Your task to perform on an android device: Go to location settings Image 0: 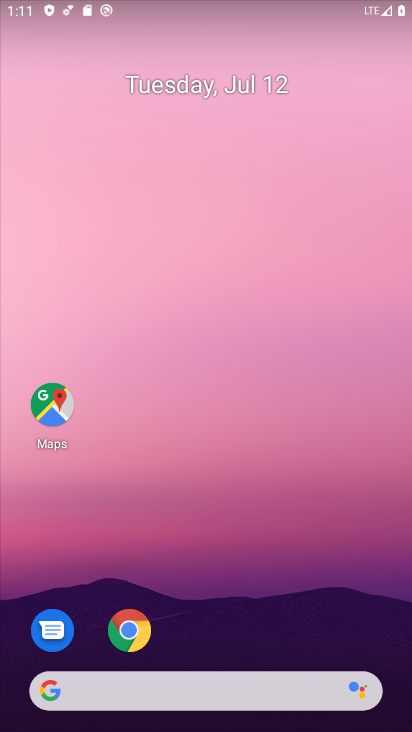
Step 0: drag from (359, 612) to (339, 111)
Your task to perform on an android device: Go to location settings Image 1: 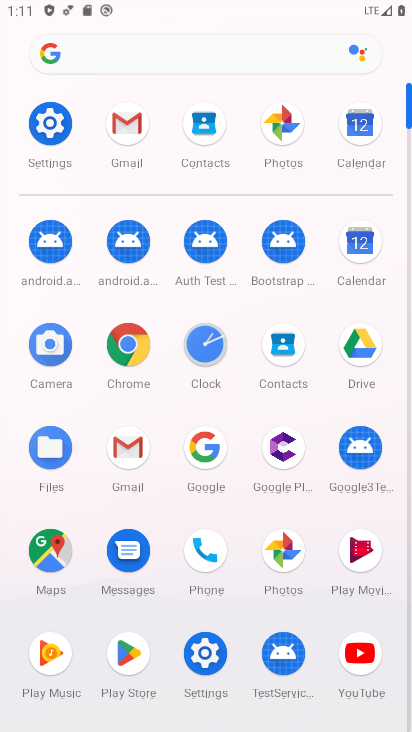
Step 1: click (203, 657)
Your task to perform on an android device: Go to location settings Image 2: 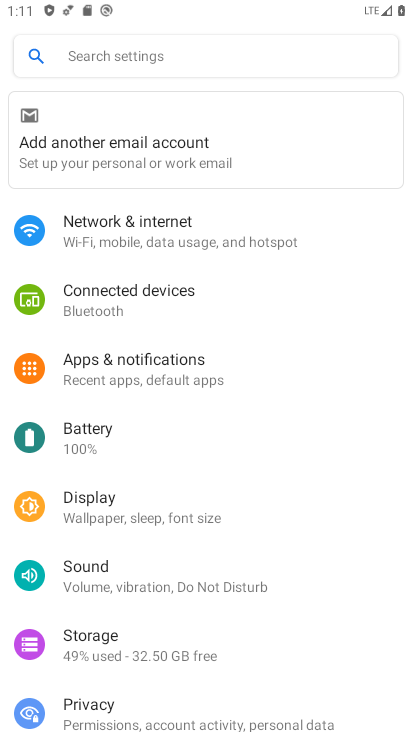
Step 2: drag from (314, 653) to (270, 279)
Your task to perform on an android device: Go to location settings Image 3: 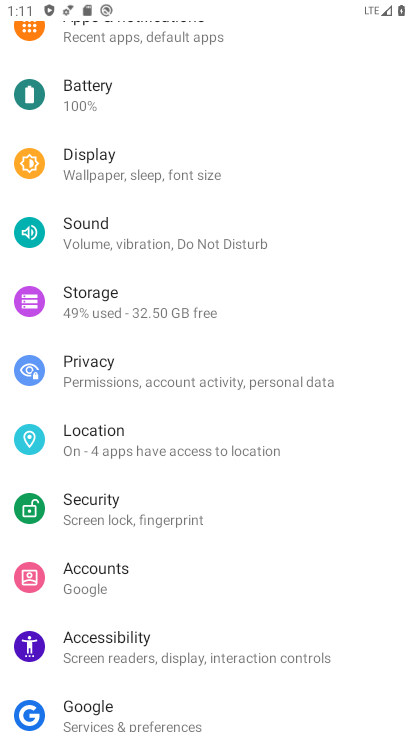
Step 3: click (85, 443)
Your task to perform on an android device: Go to location settings Image 4: 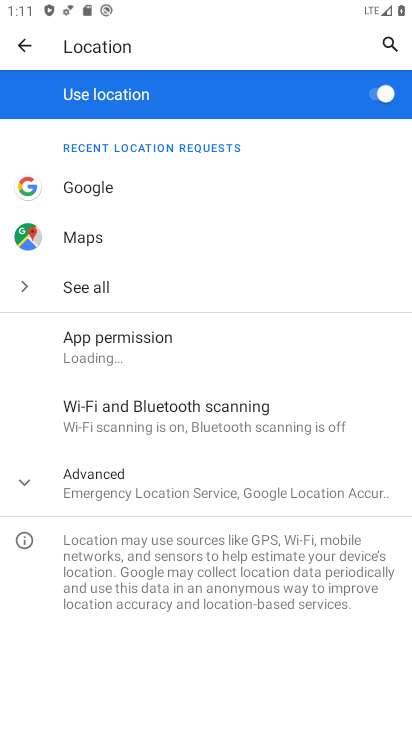
Step 4: click (31, 479)
Your task to perform on an android device: Go to location settings Image 5: 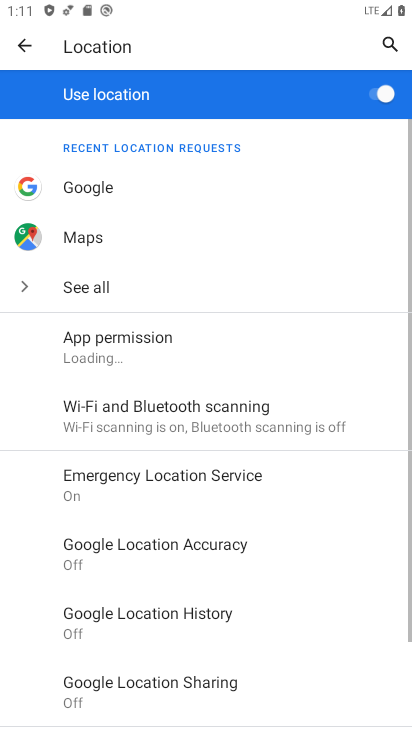
Step 5: task complete